Your task to perform on an android device: turn on notifications settings in the gmail app Image 0: 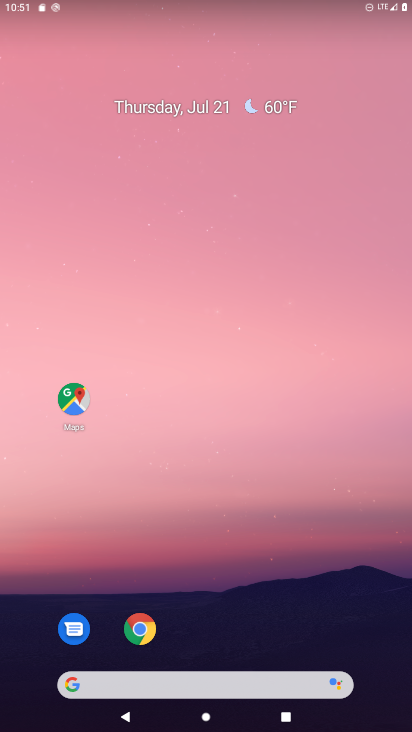
Step 0: press home button
Your task to perform on an android device: turn on notifications settings in the gmail app Image 1: 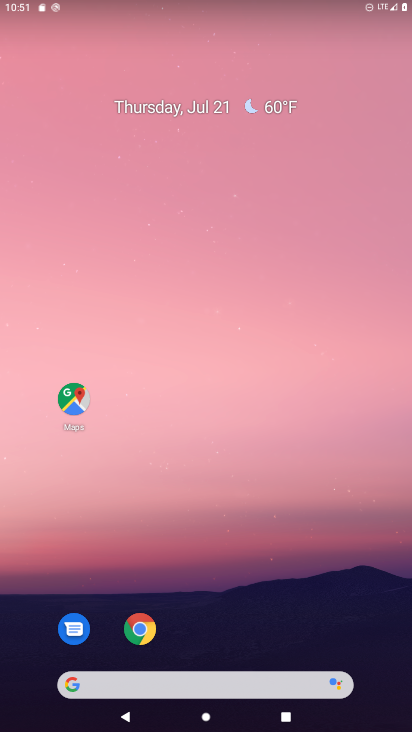
Step 1: drag from (279, 582) to (272, 32)
Your task to perform on an android device: turn on notifications settings in the gmail app Image 2: 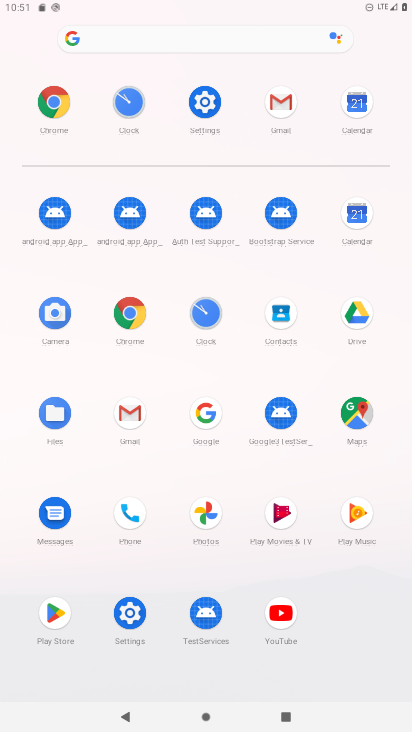
Step 2: click (284, 110)
Your task to perform on an android device: turn on notifications settings in the gmail app Image 3: 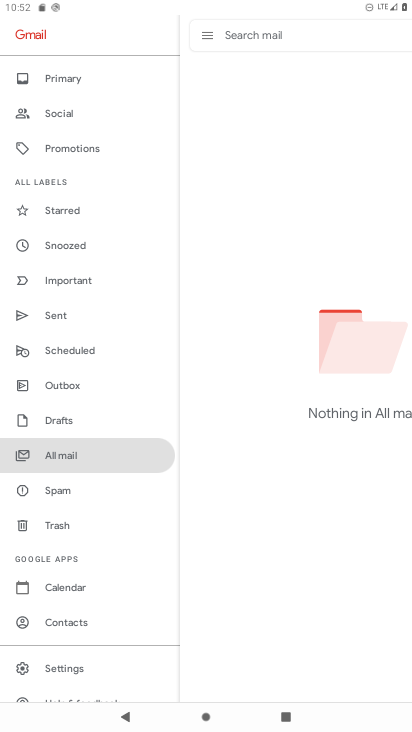
Step 3: click (69, 669)
Your task to perform on an android device: turn on notifications settings in the gmail app Image 4: 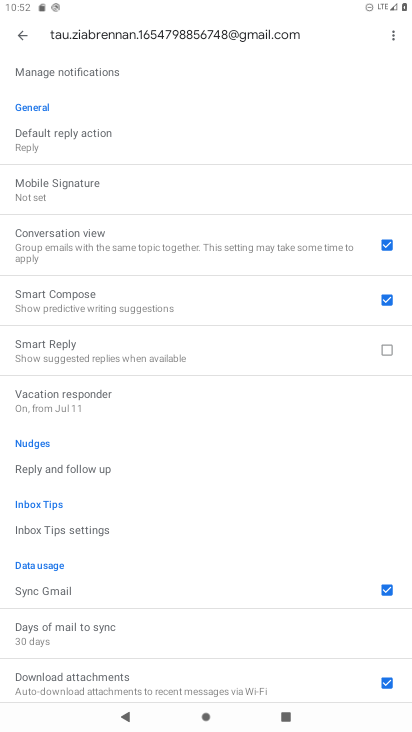
Step 4: click (49, 75)
Your task to perform on an android device: turn on notifications settings in the gmail app Image 5: 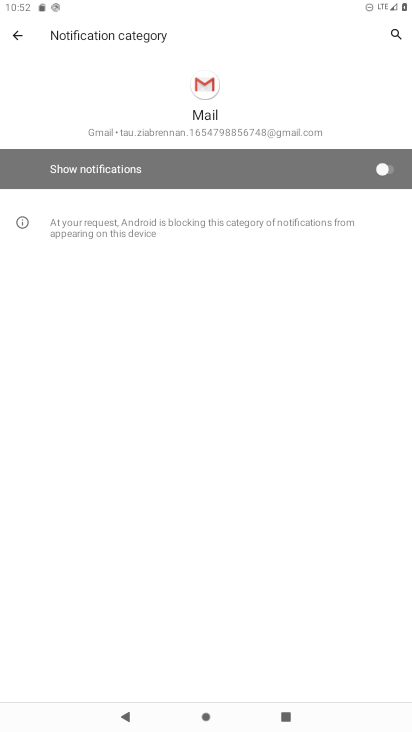
Step 5: click (382, 173)
Your task to perform on an android device: turn on notifications settings in the gmail app Image 6: 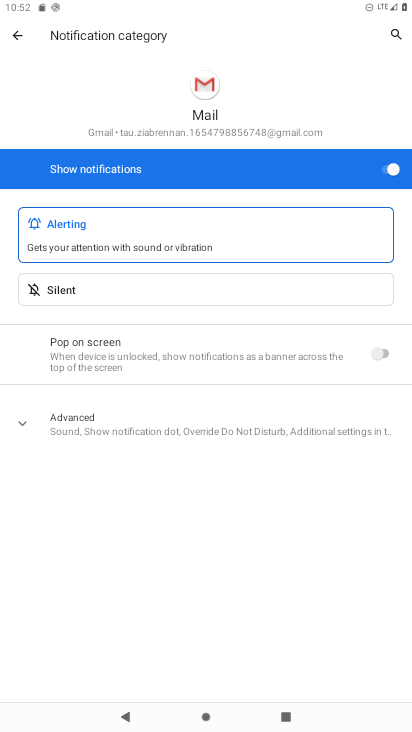
Step 6: task complete